Your task to perform on an android device: Open calendar and show me the third week of next month Image 0: 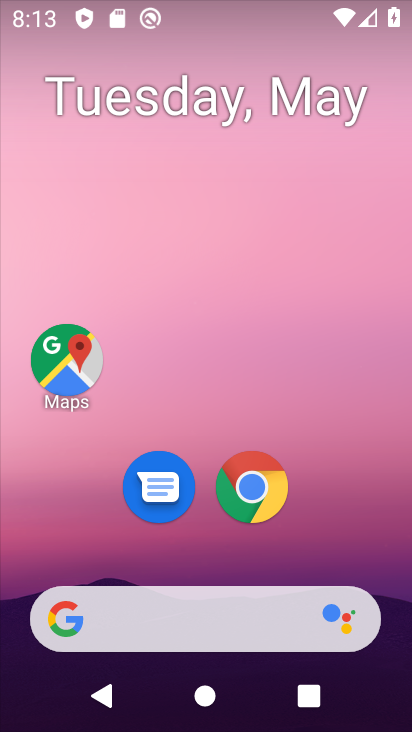
Step 0: drag from (93, 588) to (190, 136)
Your task to perform on an android device: Open calendar and show me the third week of next month Image 1: 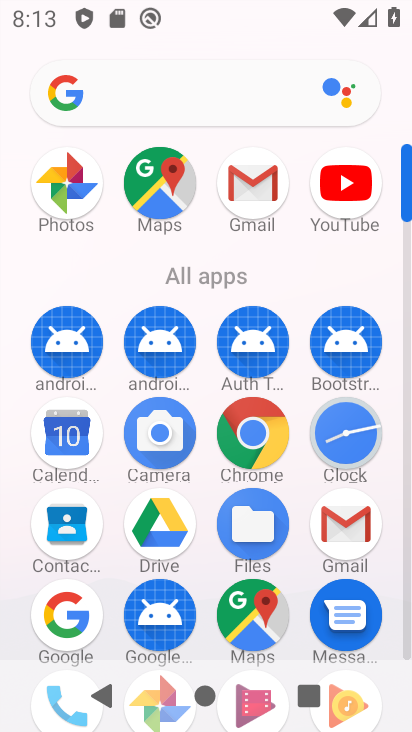
Step 1: click (54, 433)
Your task to perform on an android device: Open calendar and show me the third week of next month Image 2: 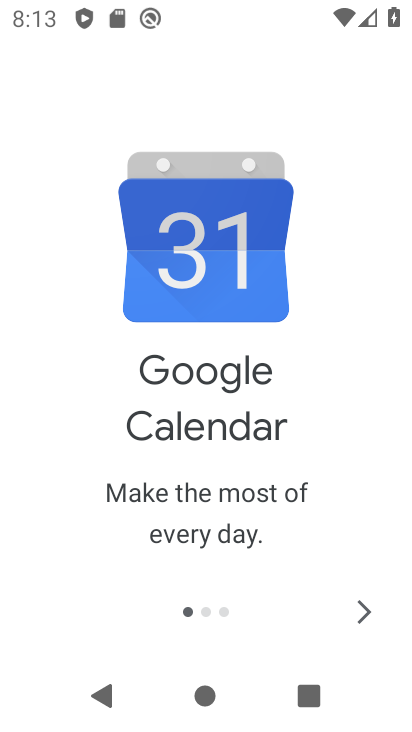
Step 2: click (362, 609)
Your task to perform on an android device: Open calendar and show me the third week of next month Image 3: 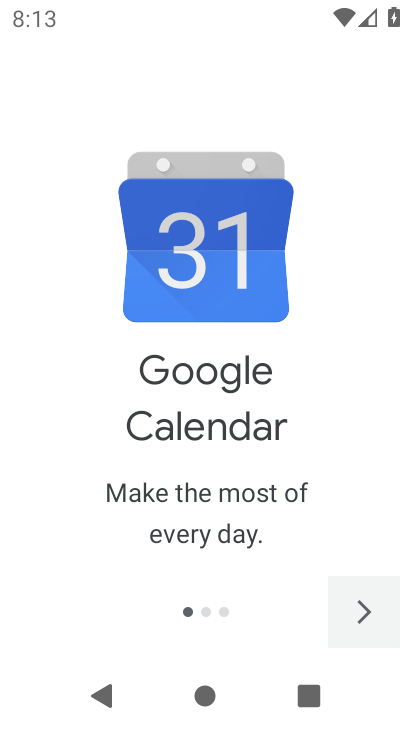
Step 3: click (362, 609)
Your task to perform on an android device: Open calendar and show me the third week of next month Image 4: 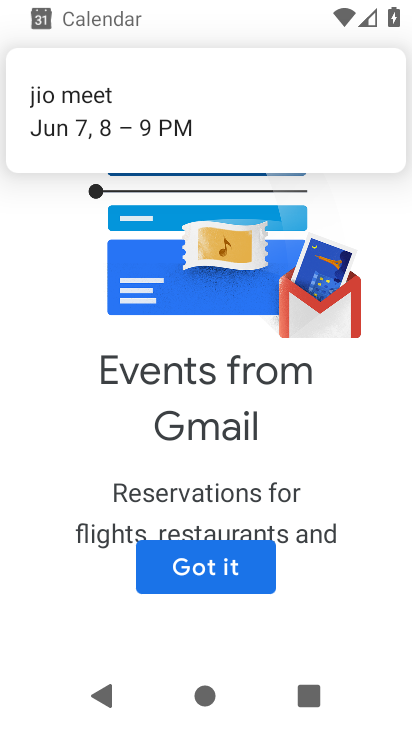
Step 4: click (362, 609)
Your task to perform on an android device: Open calendar and show me the third week of next month Image 5: 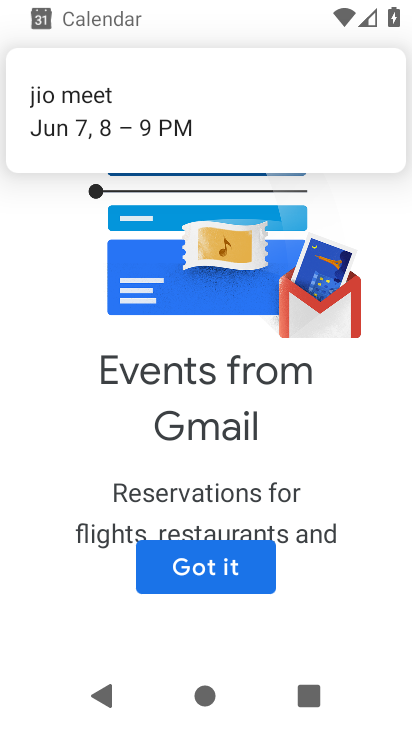
Step 5: click (262, 570)
Your task to perform on an android device: Open calendar and show me the third week of next month Image 6: 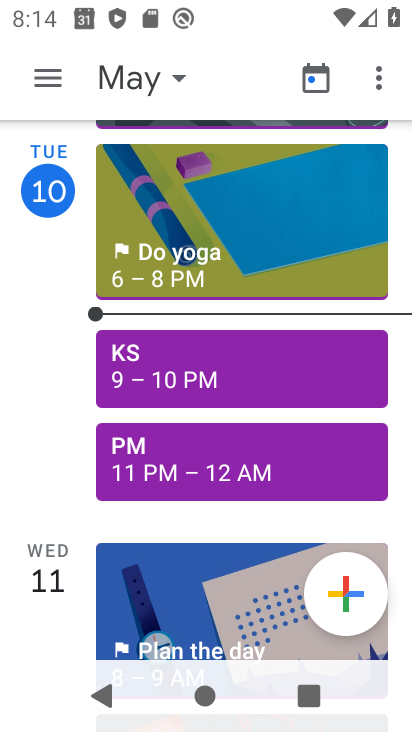
Step 6: click (126, 90)
Your task to perform on an android device: Open calendar and show me the third week of next month Image 7: 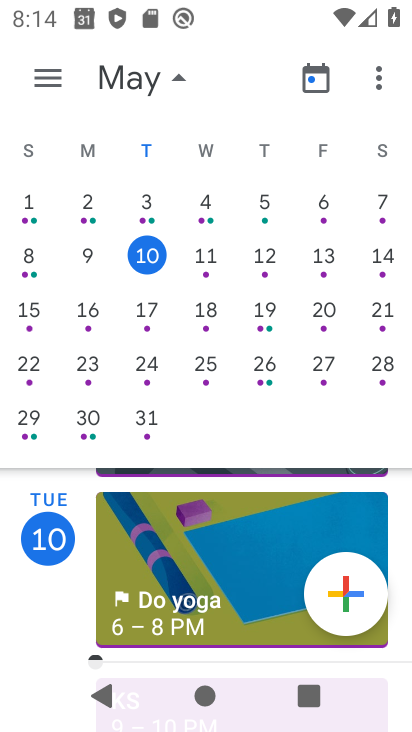
Step 7: drag from (325, 409) to (9, 398)
Your task to perform on an android device: Open calendar and show me the third week of next month Image 8: 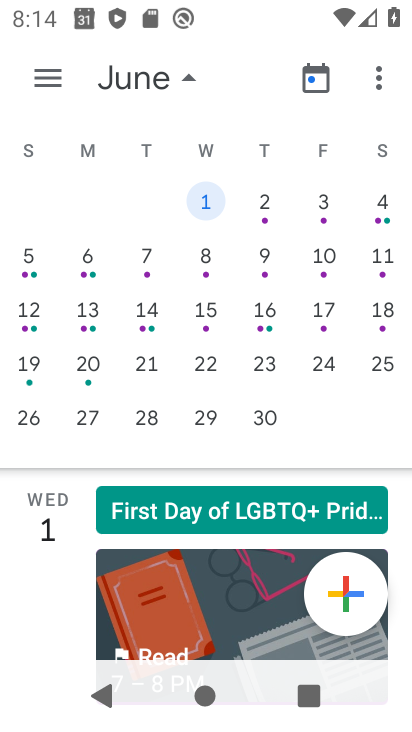
Step 8: click (39, 374)
Your task to perform on an android device: Open calendar and show me the third week of next month Image 9: 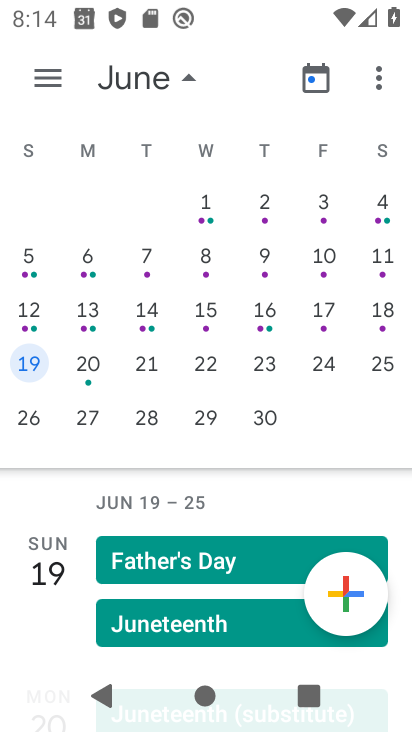
Step 9: click (54, 67)
Your task to perform on an android device: Open calendar and show me the third week of next month Image 10: 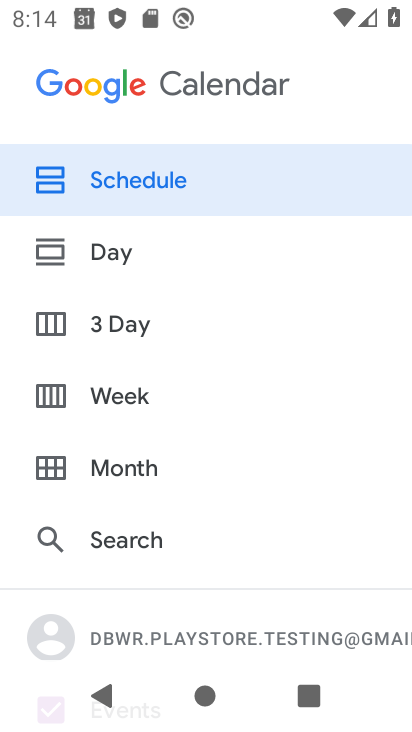
Step 10: click (148, 407)
Your task to perform on an android device: Open calendar and show me the third week of next month Image 11: 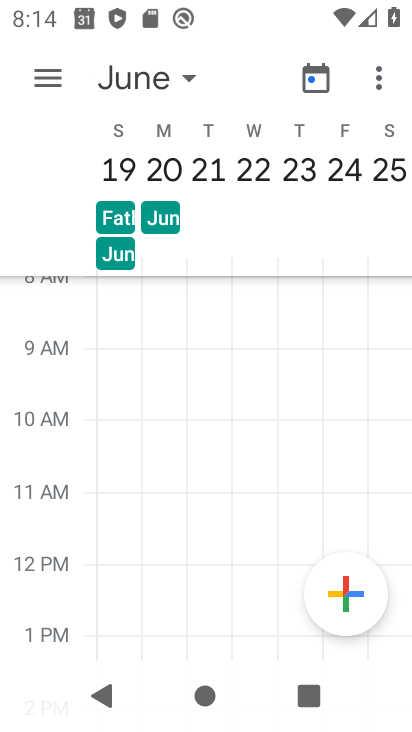
Step 11: task complete